Your task to perform on an android device: Go to Google maps Image 0: 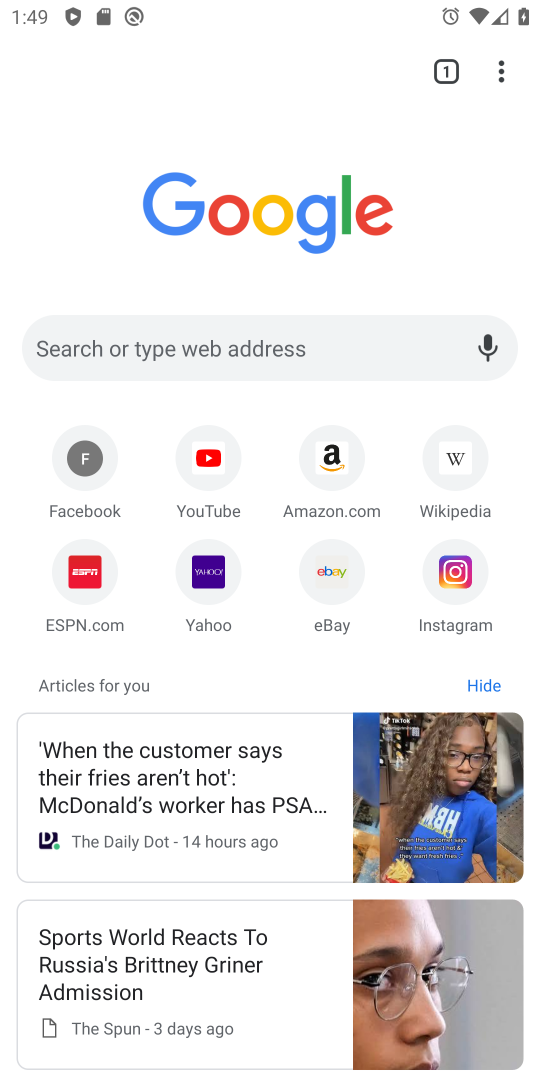
Step 0: press home button
Your task to perform on an android device: Go to Google maps Image 1: 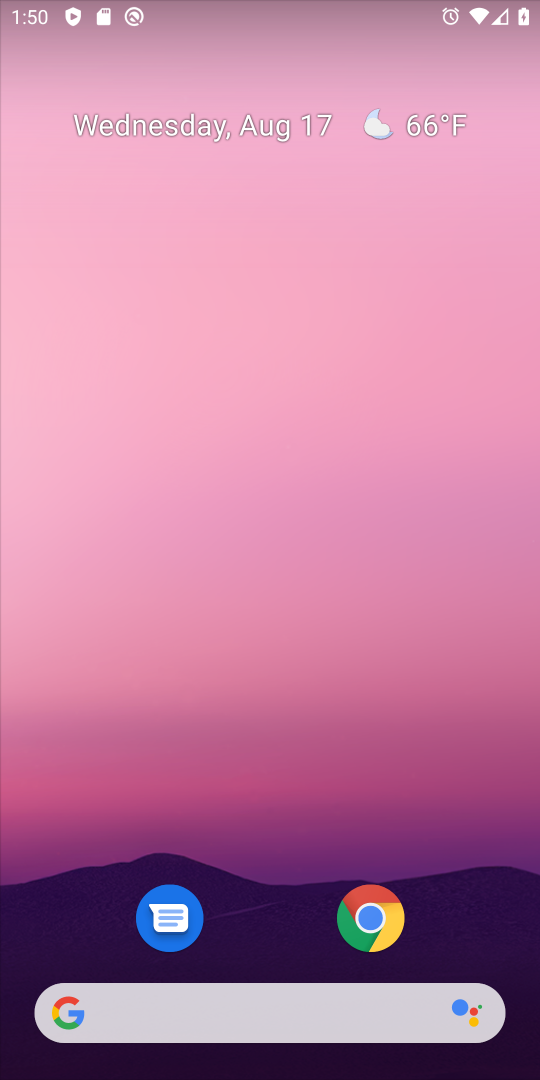
Step 1: drag from (251, 1016) to (242, 212)
Your task to perform on an android device: Go to Google maps Image 2: 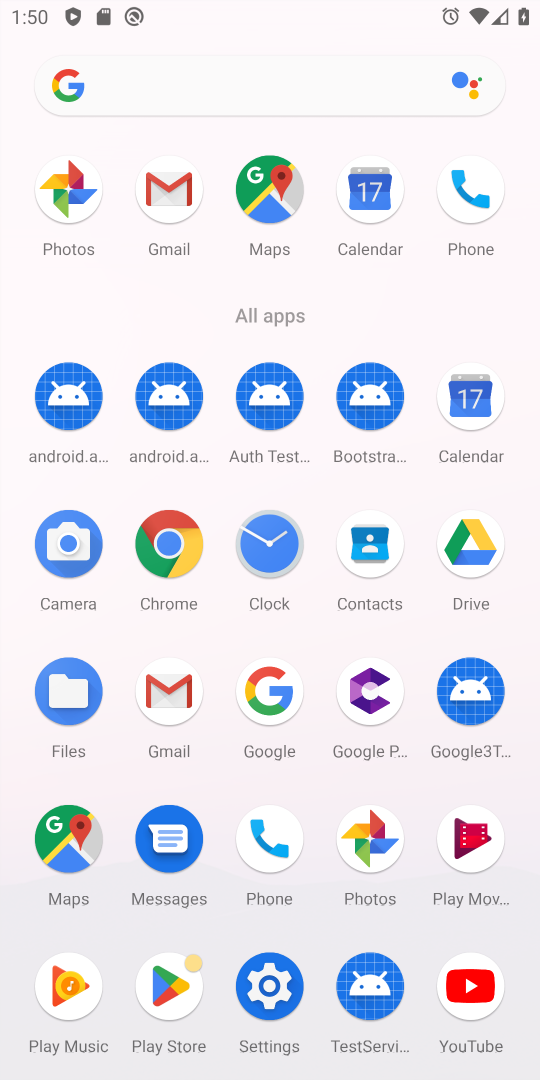
Step 2: click (59, 866)
Your task to perform on an android device: Go to Google maps Image 3: 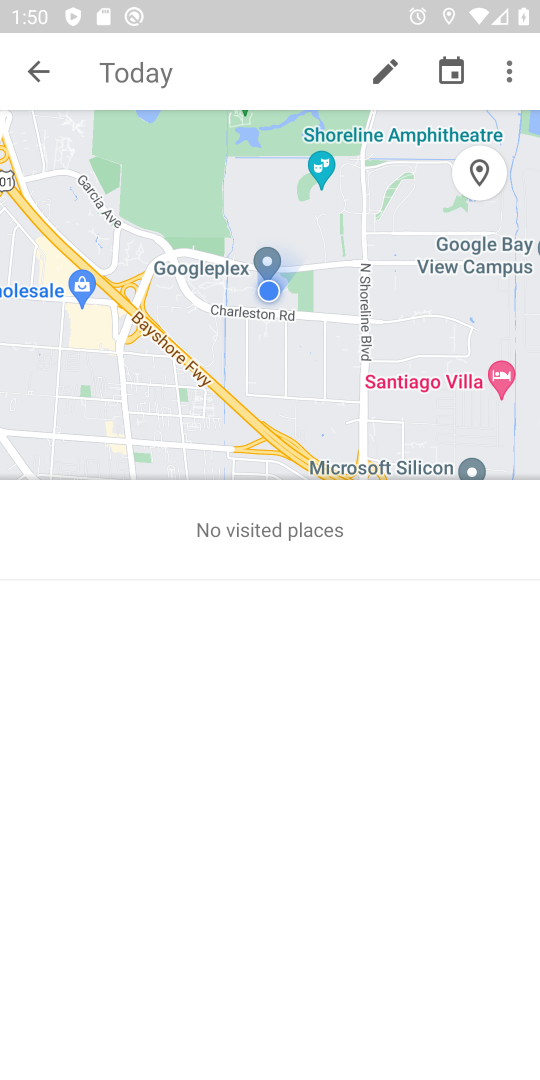
Step 3: task complete